Your task to perform on an android device: Is it going to rain this weekend? Image 0: 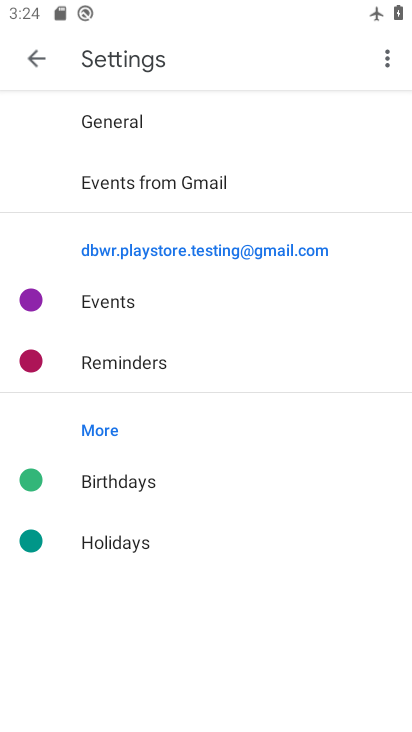
Step 0: press home button
Your task to perform on an android device: Is it going to rain this weekend? Image 1: 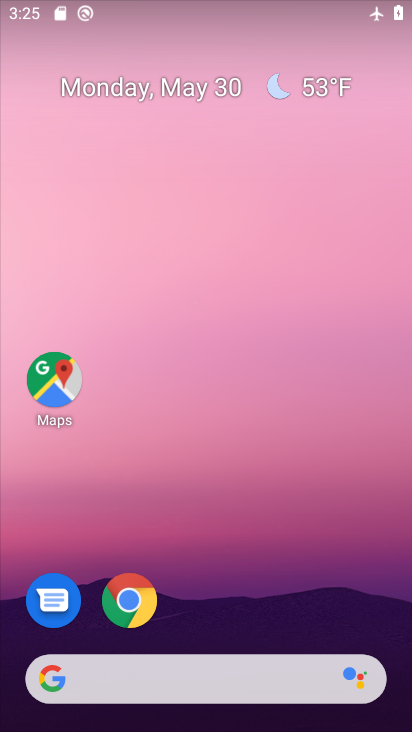
Step 1: drag from (300, 540) to (305, 20)
Your task to perform on an android device: Is it going to rain this weekend? Image 2: 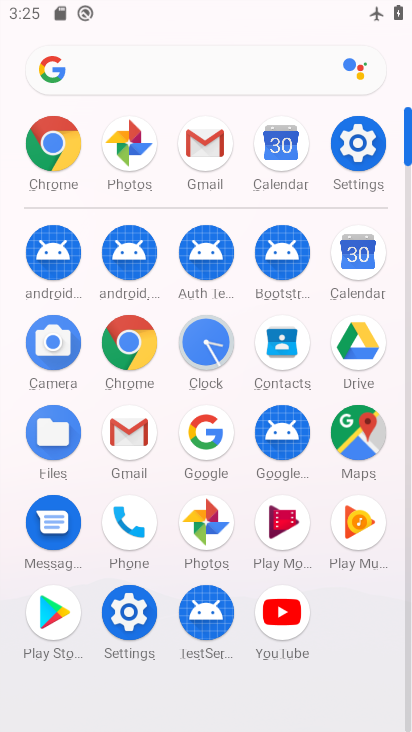
Step 2: press home button
Your task to perform on an android device: Is it going to rain this weekend? Image 3: 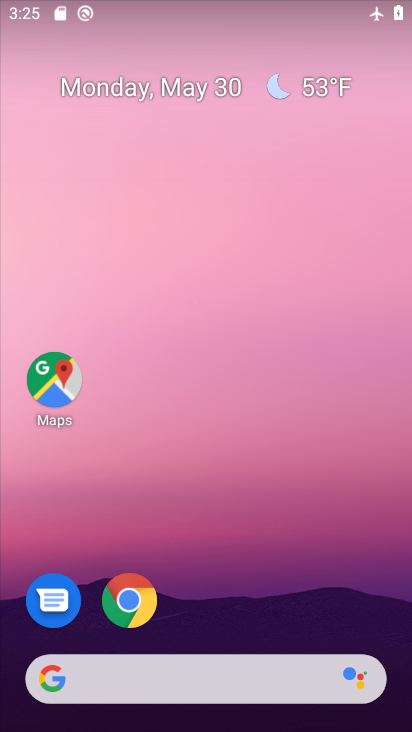
Step 3: click (329, 66)
Your task to perform on an android device: Is it going to rain this weekend? Image 4: 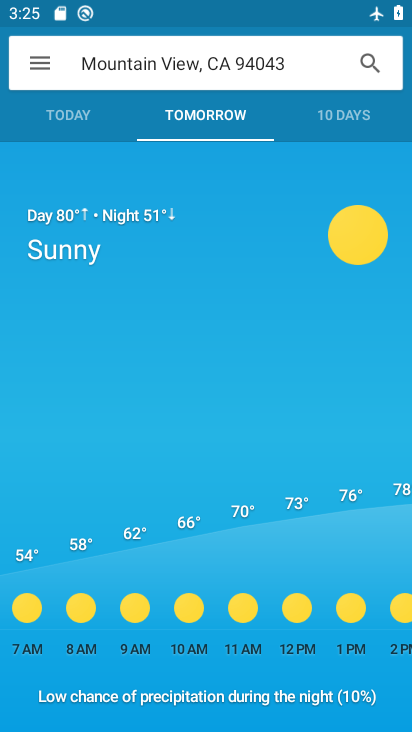
Step 4: click (338, 124)
Your task to perform on an android device: Is it going to rain this weekend? Image 5: 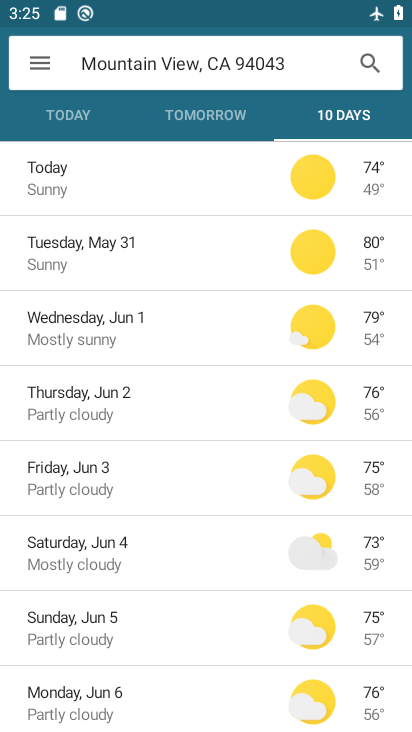
Step 5: task complete